Your task to perform on an android device: Open the calendar and show me this week's events? Image 0: 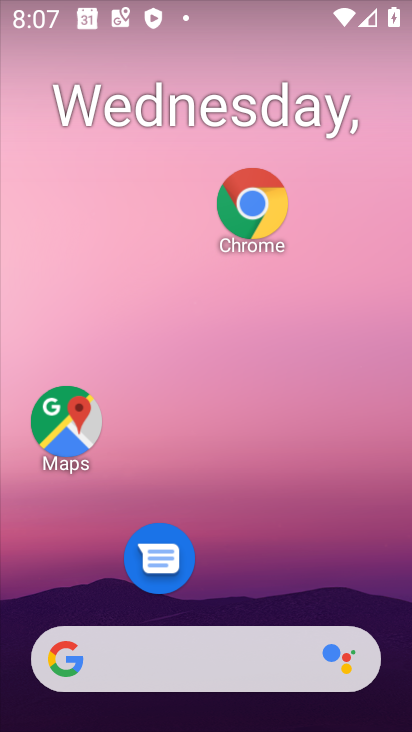
Step 0: drag from (227, 549) to (222, 0)
Your task to perform on an android device: Open the calendar and show me this week's events? Image 1: 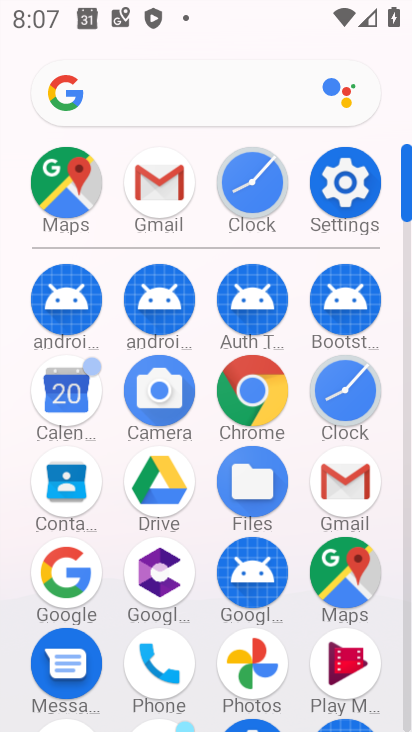
Step 1: click (68, 390)
Your task to perform on an android device: Open the calendar and show me this week's events? Image 2: 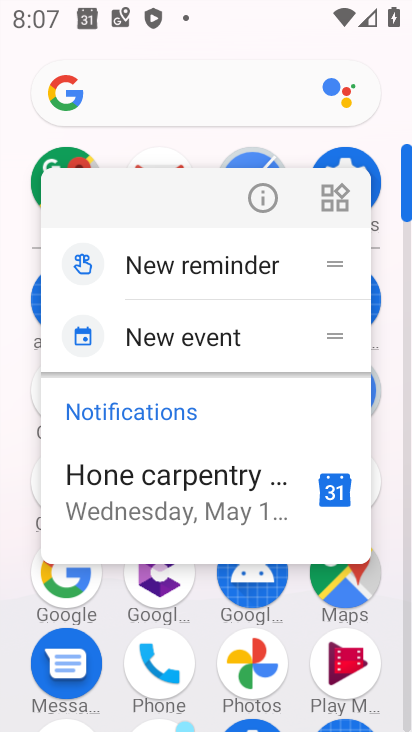
Step 2: click (15, 346)
Your task to perform on an android device: Open the calendar and show me this week's events? Image 3: 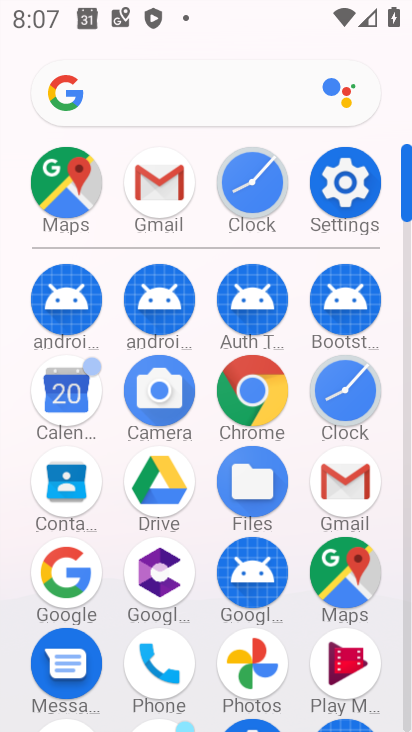
Step 3: click (65, 396)
Your task to perform on an android device: Open the calendar and show me this week's events? Image 4: 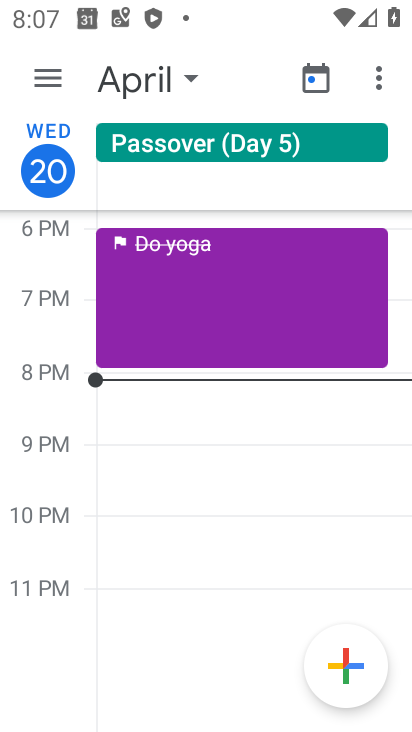
Step 4: click (41, 78)
Your task to perform on an android device: Open the calendar and show me this week's events? Image 5: 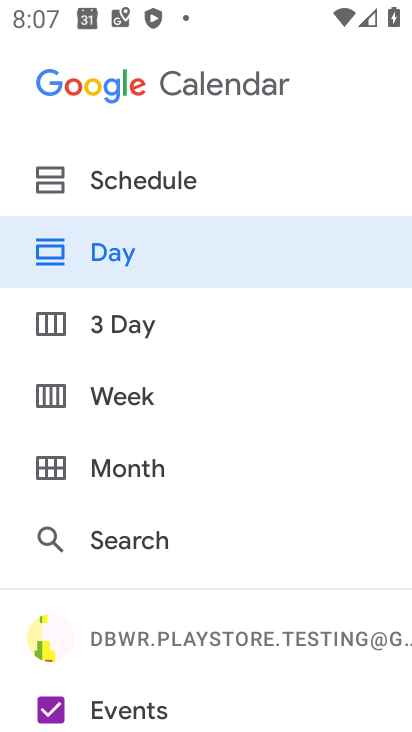
Step 5: drag from (118, 611) to (117, 105)
Your task to perform on an android device: Open the calendar and show me this week's events? Image 6: 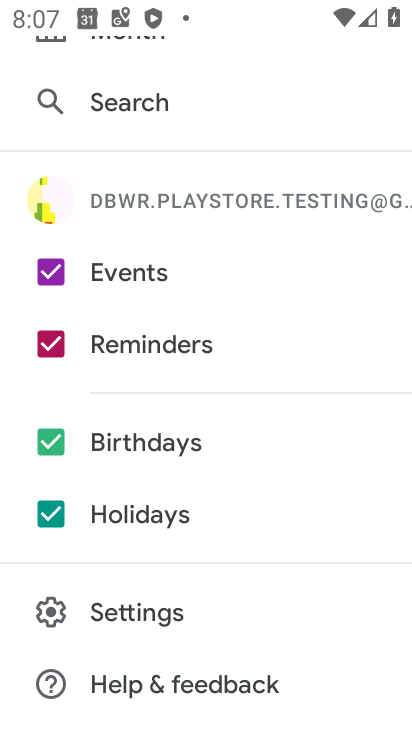
Step 6: click (47, 340)
Your task to perform on an android device: Open the calendar and show me this week's events? Image 7: 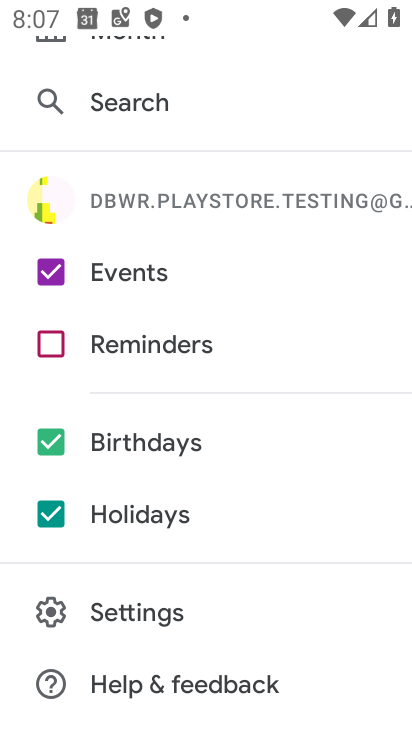
Step 7: click (49, 440)
Your task to perform on an android device: Open the calendar and show me this week's events? Image 8: 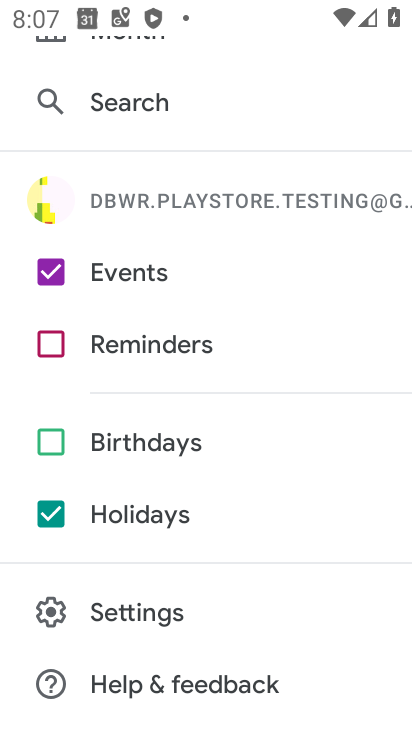
Step 8: click (51, 507)
Your task to perform on an android device: Open the calendar and show me this week's events? Image 9: 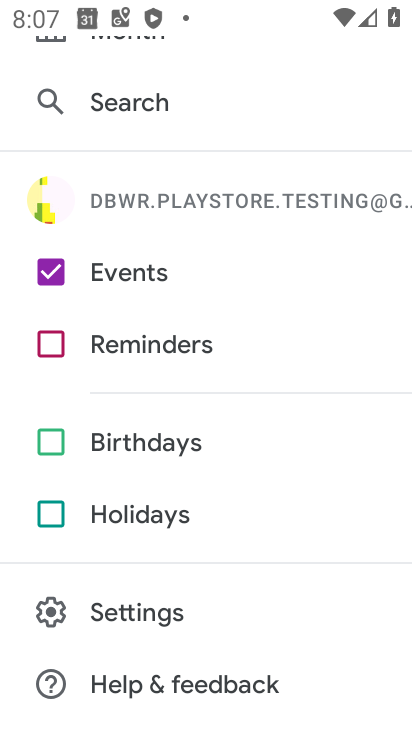
Step 9: drag from (174, 260) to (201, 731)
Your task to perform on an android device: Open the calendar and show me this week's events? Image 10: 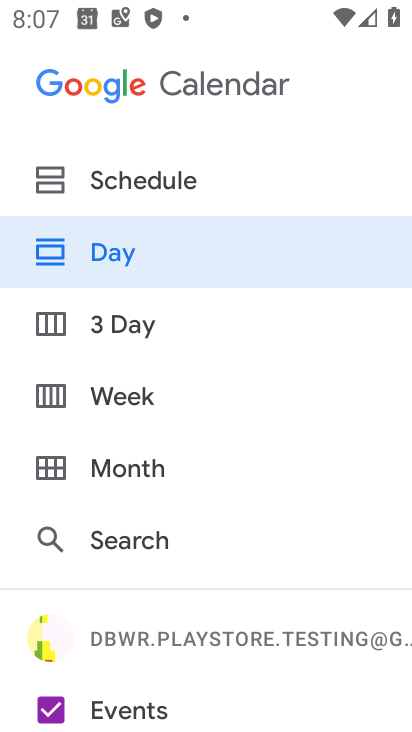
Step 10: click (71, 390)
Your task to perform on an android device: Open the calendar and show me this week's events? Image 11: 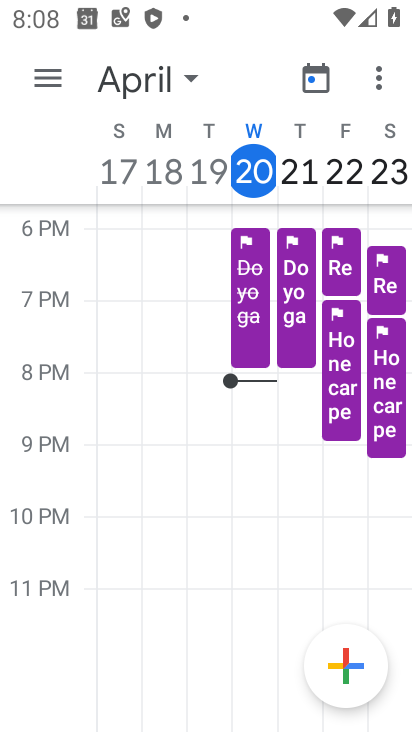
Step 11: click (244, 171)
Your task to perform on an android device: Open the calendar and show me this week's events? Image 12: 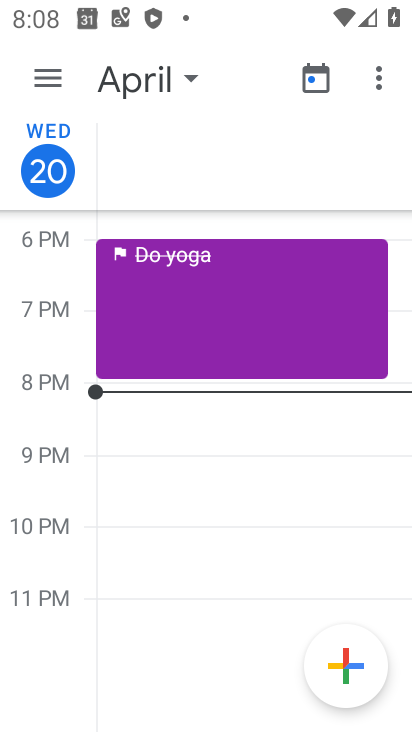
Step 12: click (74, 184)
Your task to perform on an android device: Open the calendar and show me this week's events? Image 13: 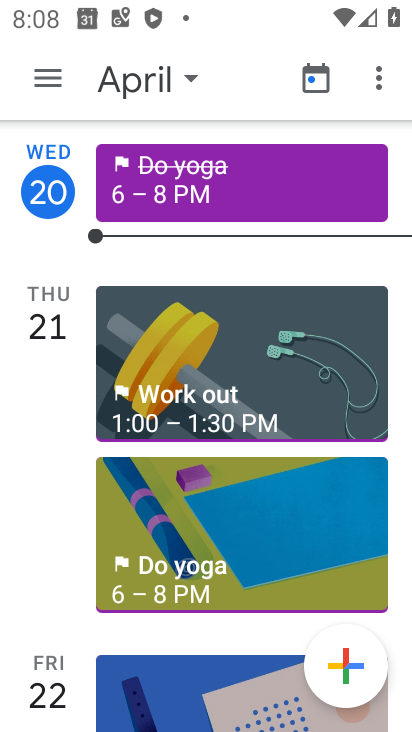
Step 13: task complete